Your task to perform on an android device: Open my contact list Image 0: 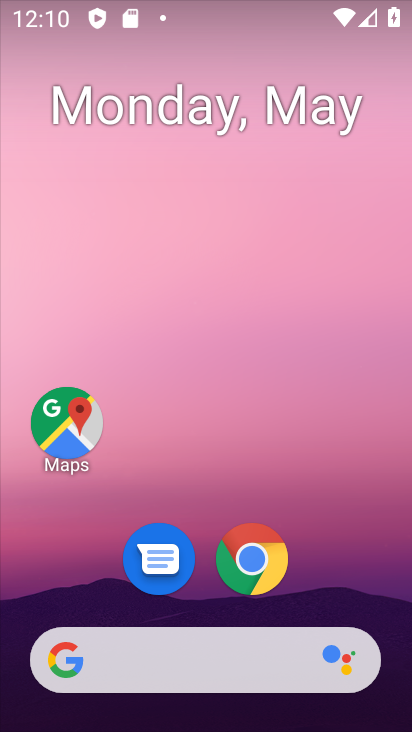
Step 0: drag from (293, 723) to (242, 177)
Your task to perform on an android device: Open my contact list Image 1: 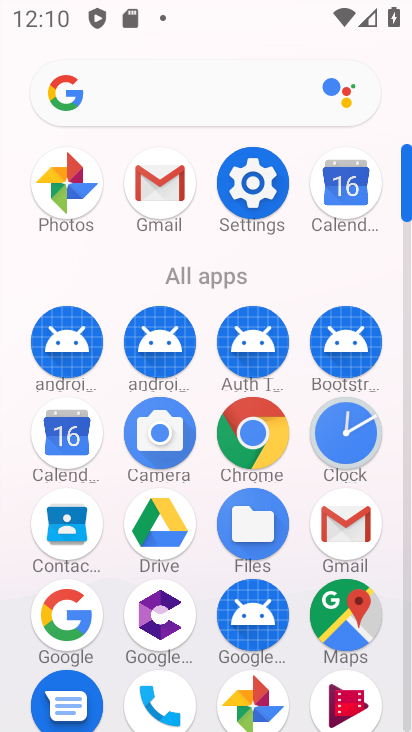
Step 1: click (71, 537)
Your task to perform on an android device: Open my contact list Image 2: 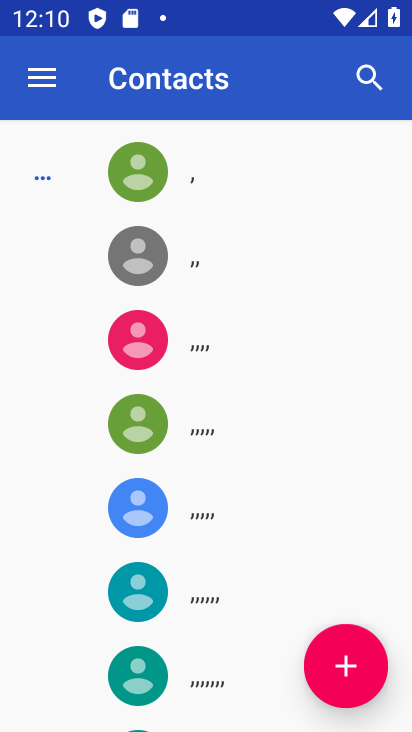
Step 2: task complete